Your task to perform on an android device: Is it going to rain this weekend? Image 0: 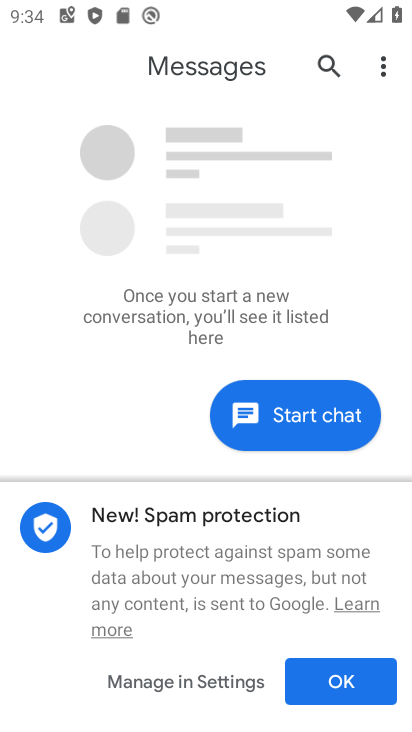
Step 0: press home button
Your task to perform on an android device: Is it going to rain this weekend? Image 1: 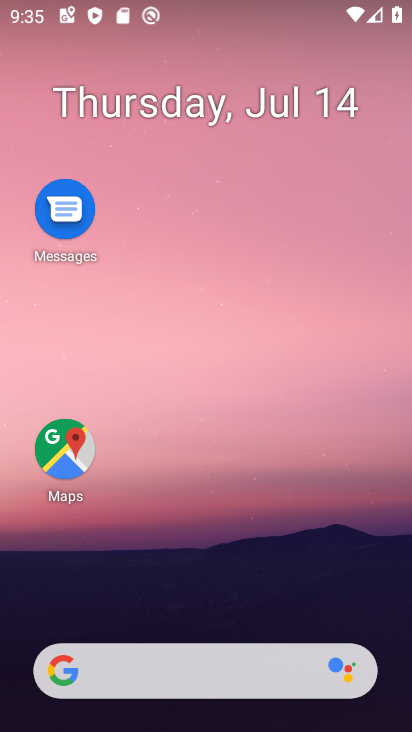
Step 1: click (223, 664)
Your task to perform on an android device: Is it going to rain this weekend? Image 2: 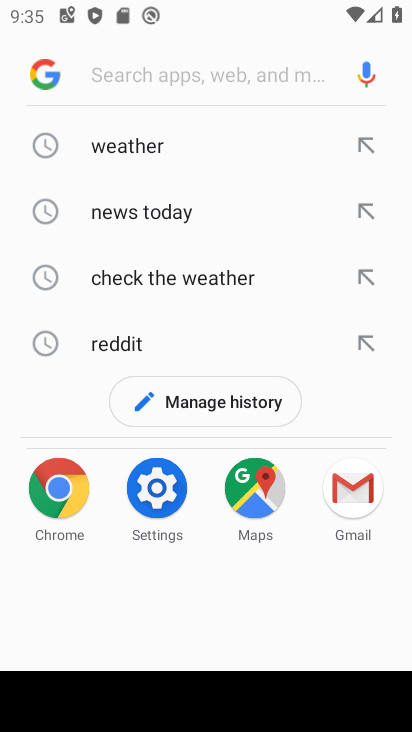
Step 2: click (116, 148)
Your task to perform on an android device: Is it going to rain this weekend? Image 3: 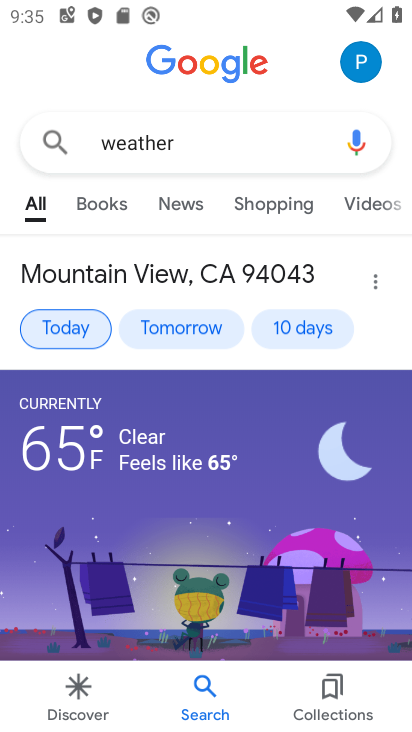
Step 3: click (276, 326)
Your task to perform on an android device: Is it going to rain this weekend? Image 4: 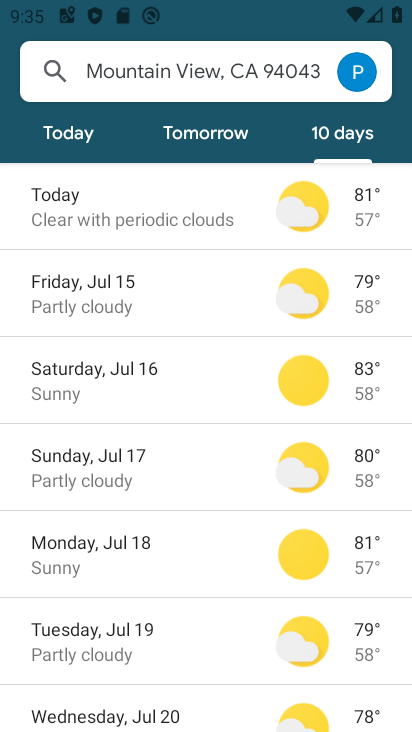
Step 4: task complete